Your task to perform on an android device: open app "Google Photos" Image 0: 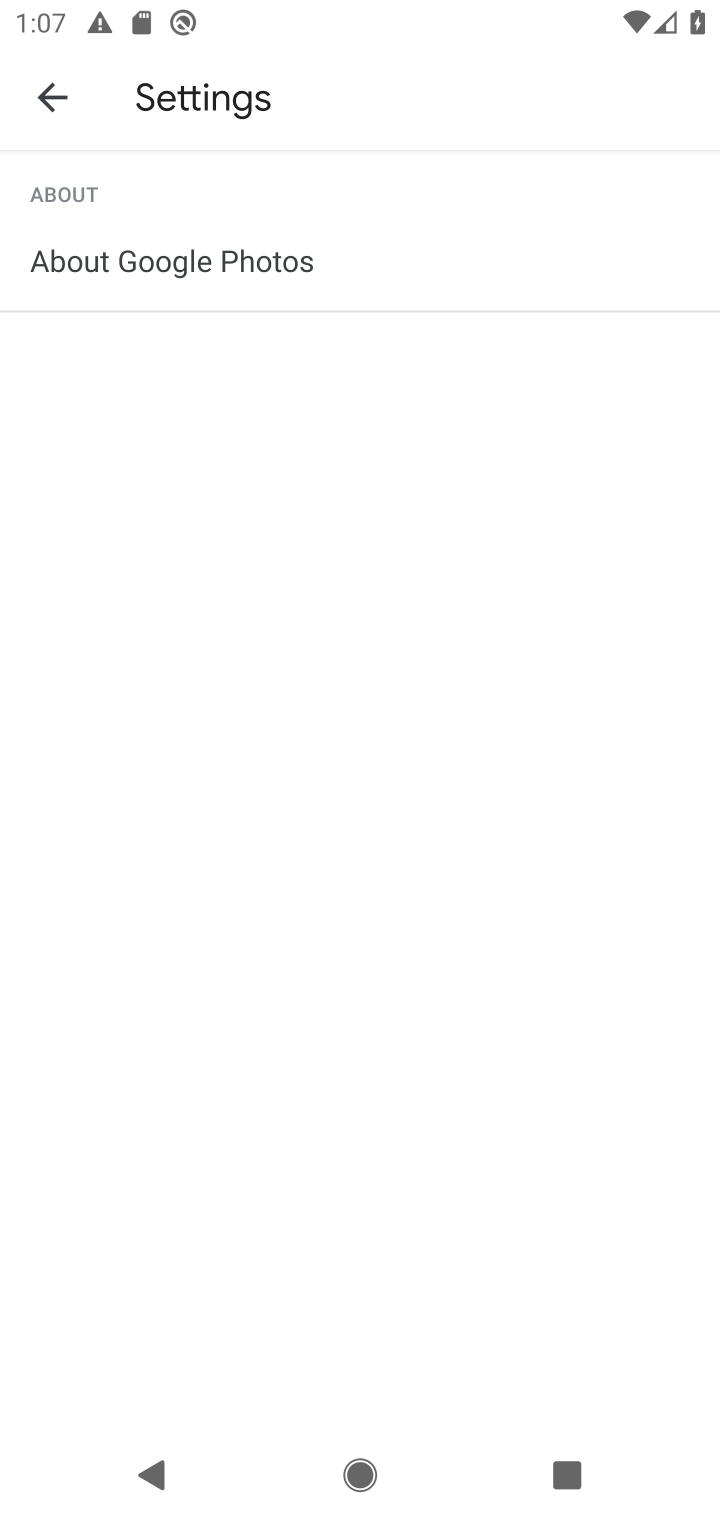
Step 0: press home button
Your task to perform on an android device: open app "Google Photos" Image 1: 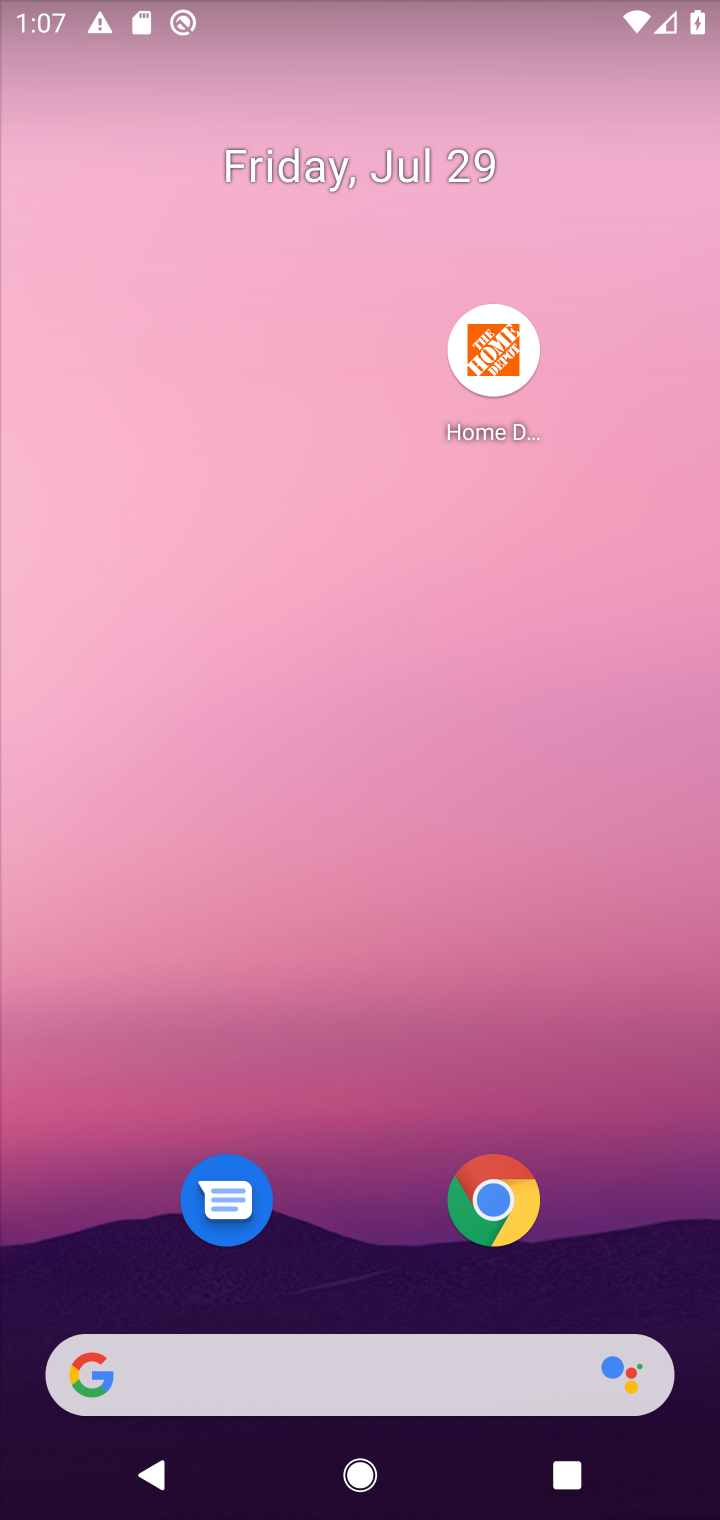
Step 1: drag from (582, 1099) to (443, 147)
Your task to perform on an android device: open app "Google Photos" Image 2: 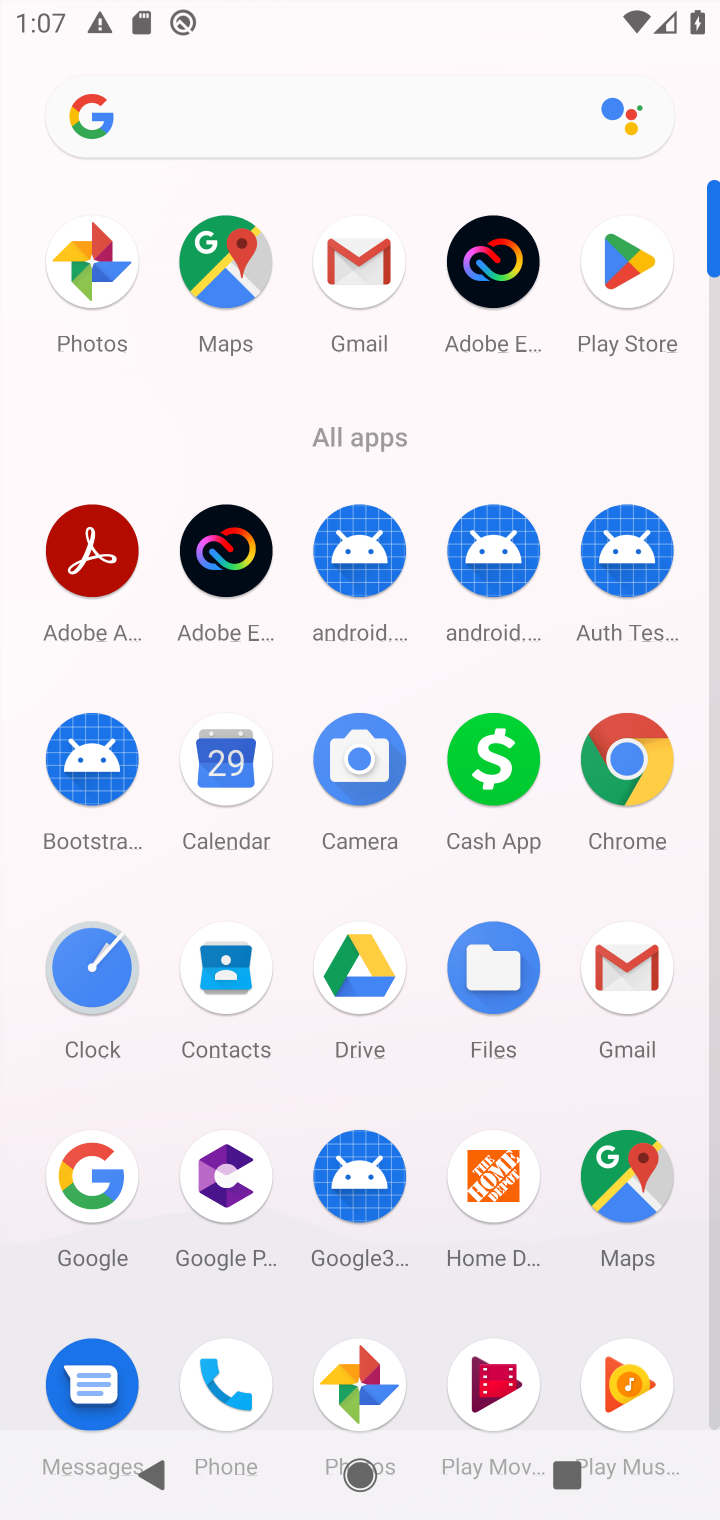
Step 2: click (650, 270)
Your task to perform on an android device: open app "Google Photos" Image 3: 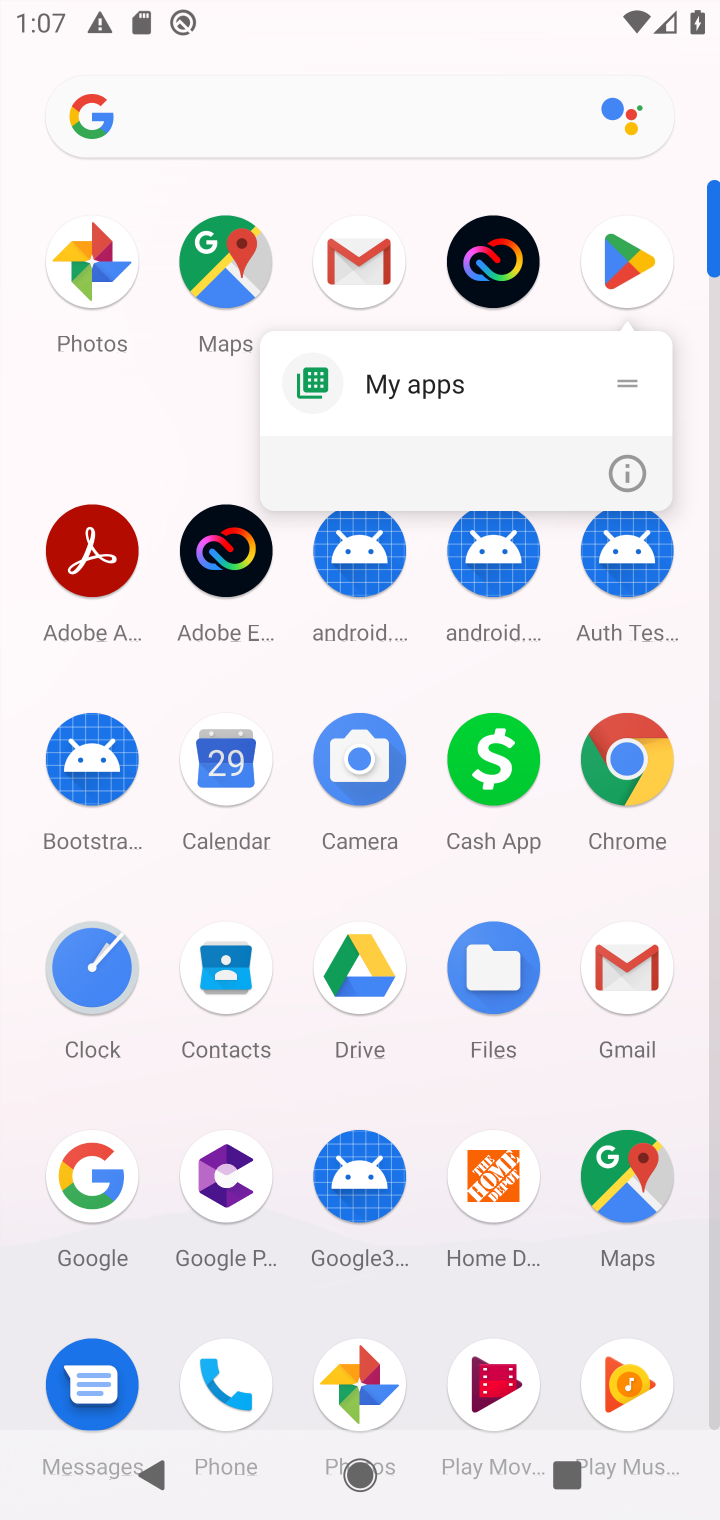
Step 3: click (616, 249)
Your task to perform on an android device: open app "Google Photos" Image 4: 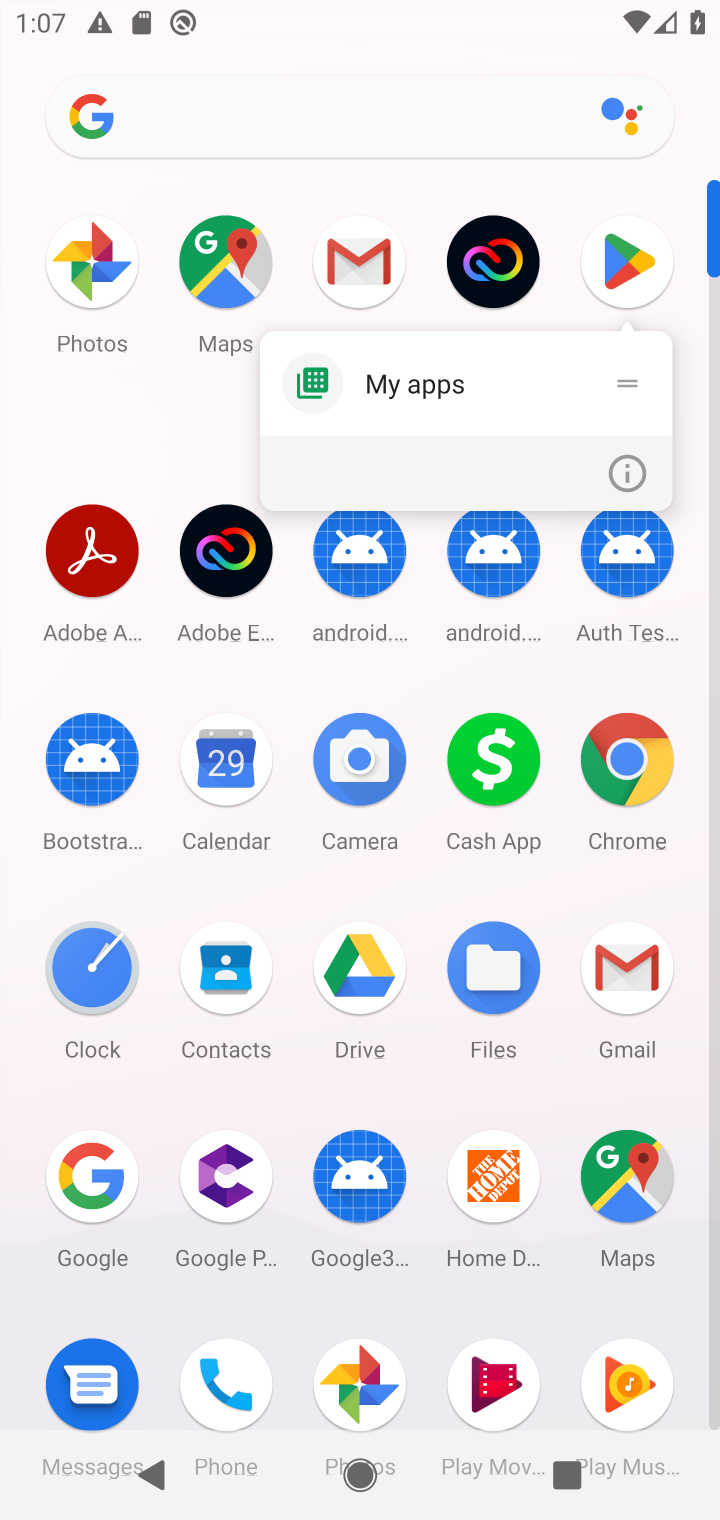
Step 4: click (618, 256)
Your task to perform on an android device: open app "Google Photos" Image 5: 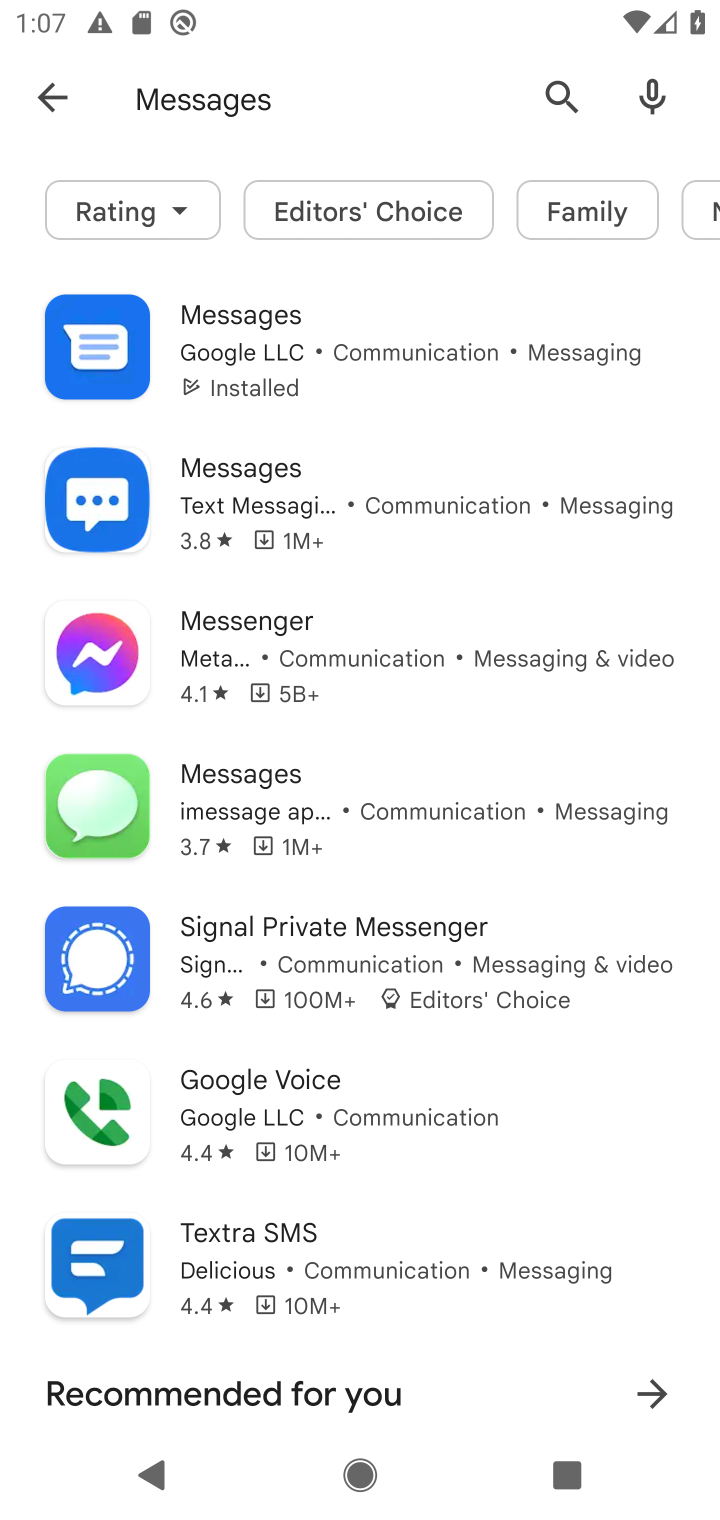
Step 5: click (574, 113)
Your task to perform on an android device: open app "Google Photos" Image 6: 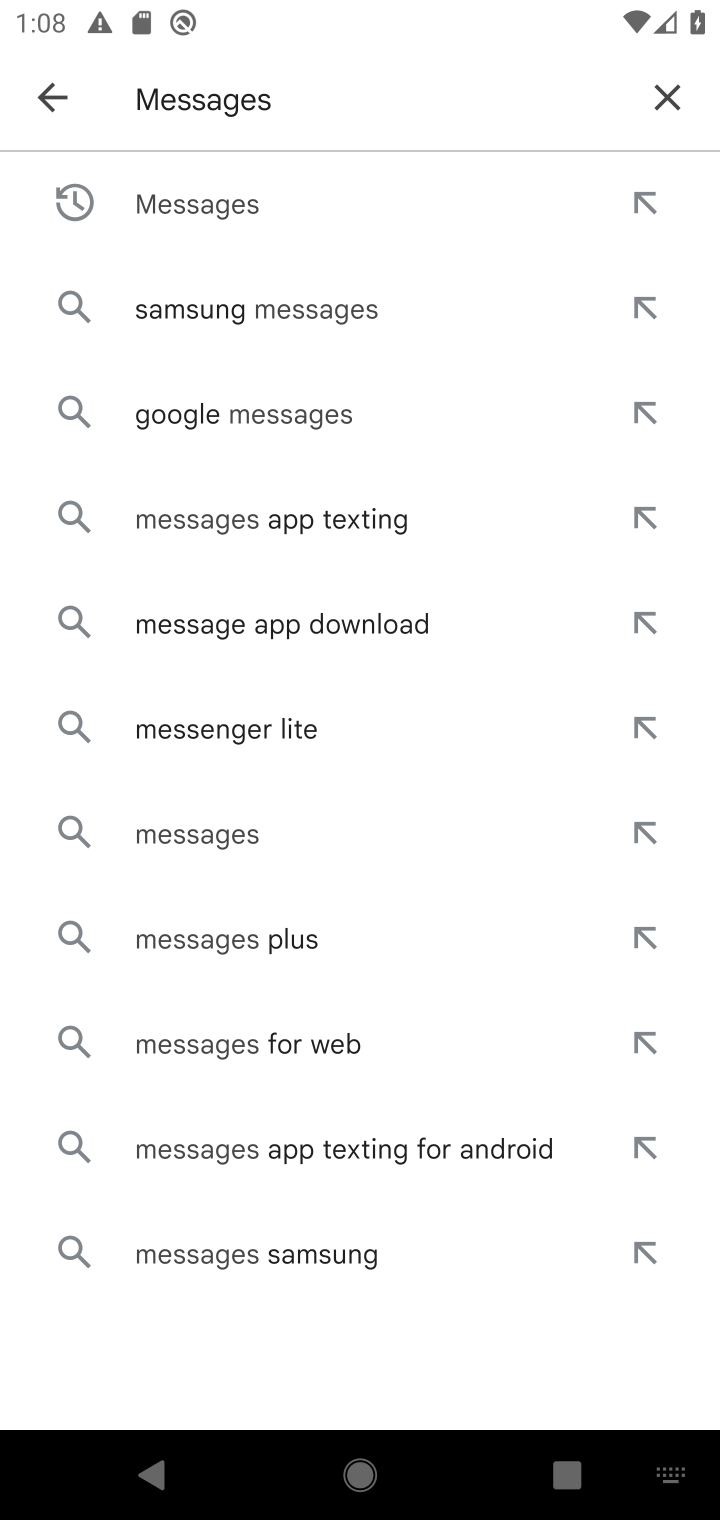
Step 6: click (675, 87)
Your task to perform on an android device: open app "Google Photos" Image 7: 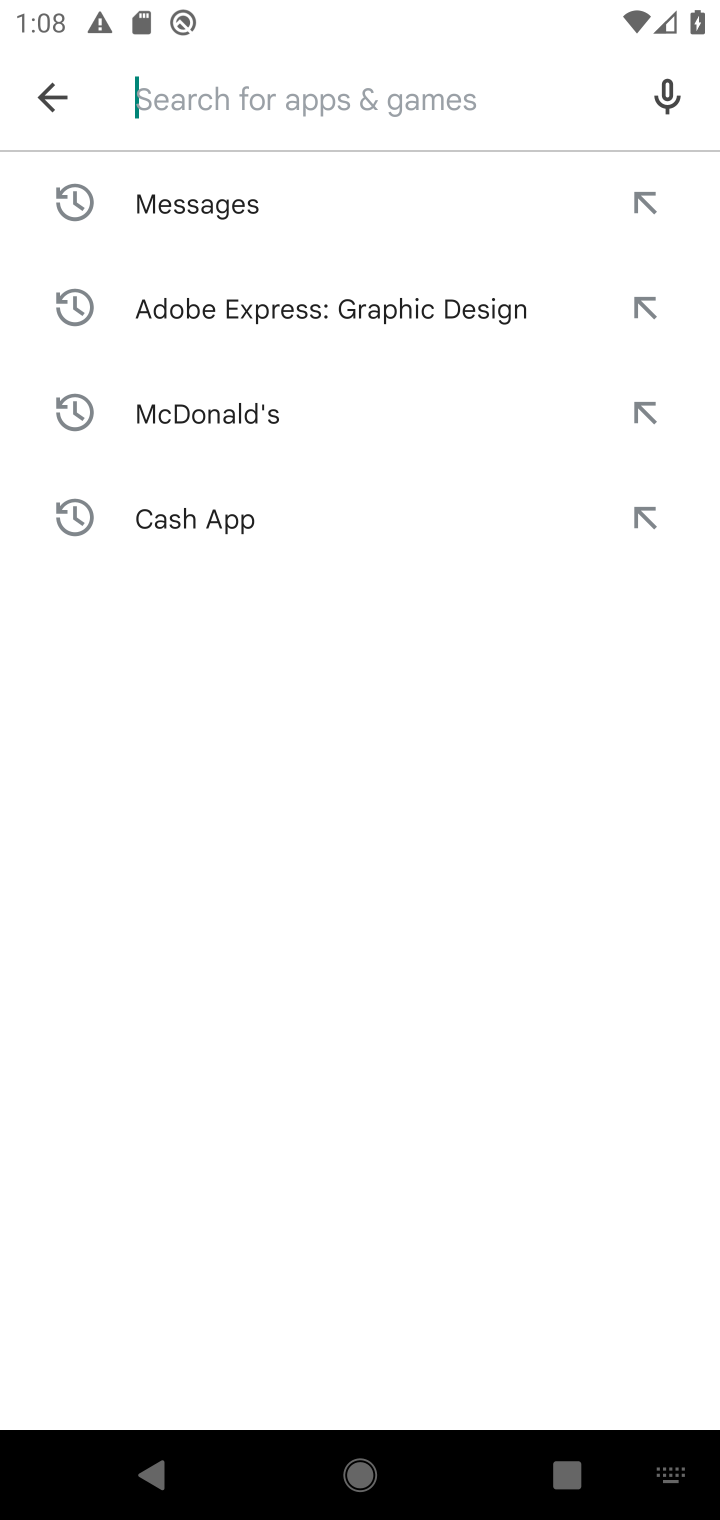
Step 7: type "Google Photos"
Your task to perform on an android device: open app "Google Photos" Image 8: 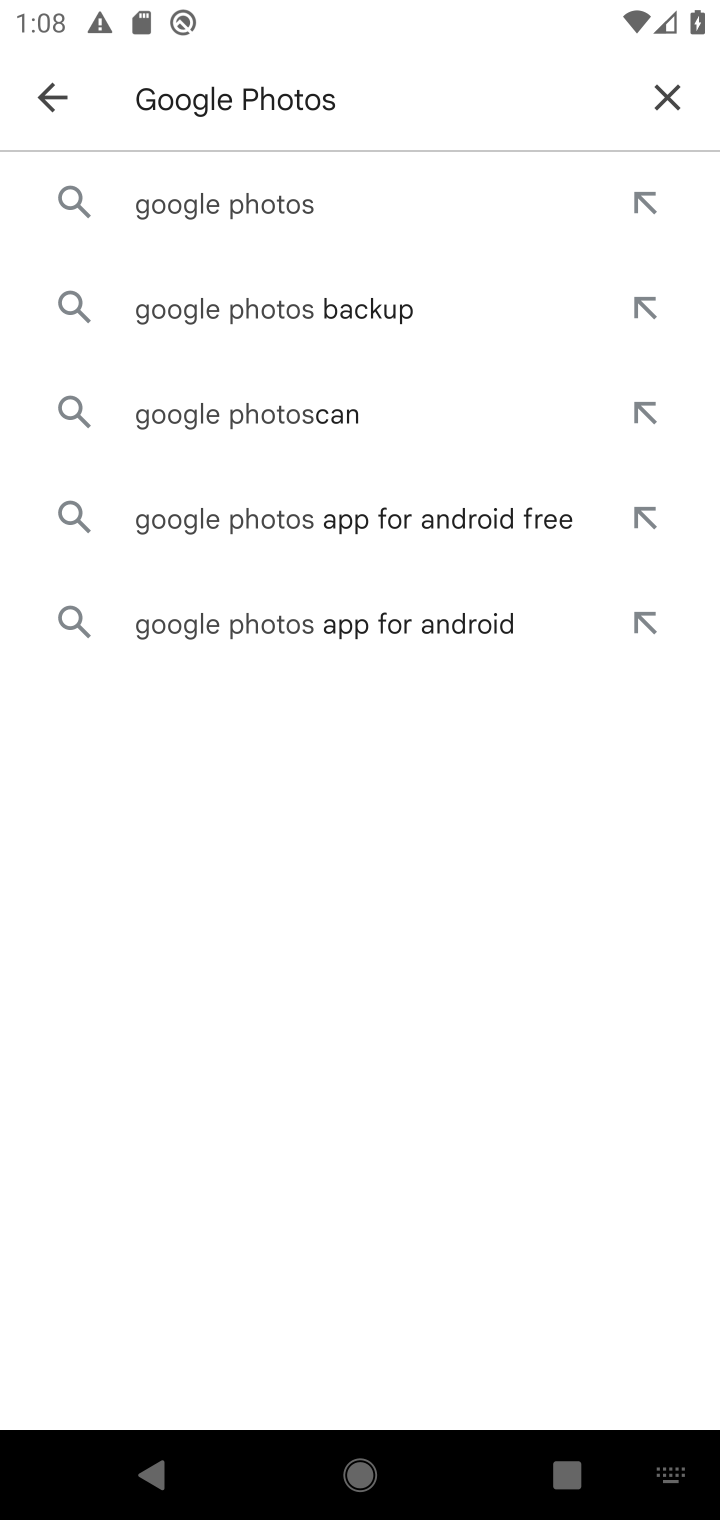
Step 8: press enter
Your task to perform on an android device: open app "Google Photos" Image 9: 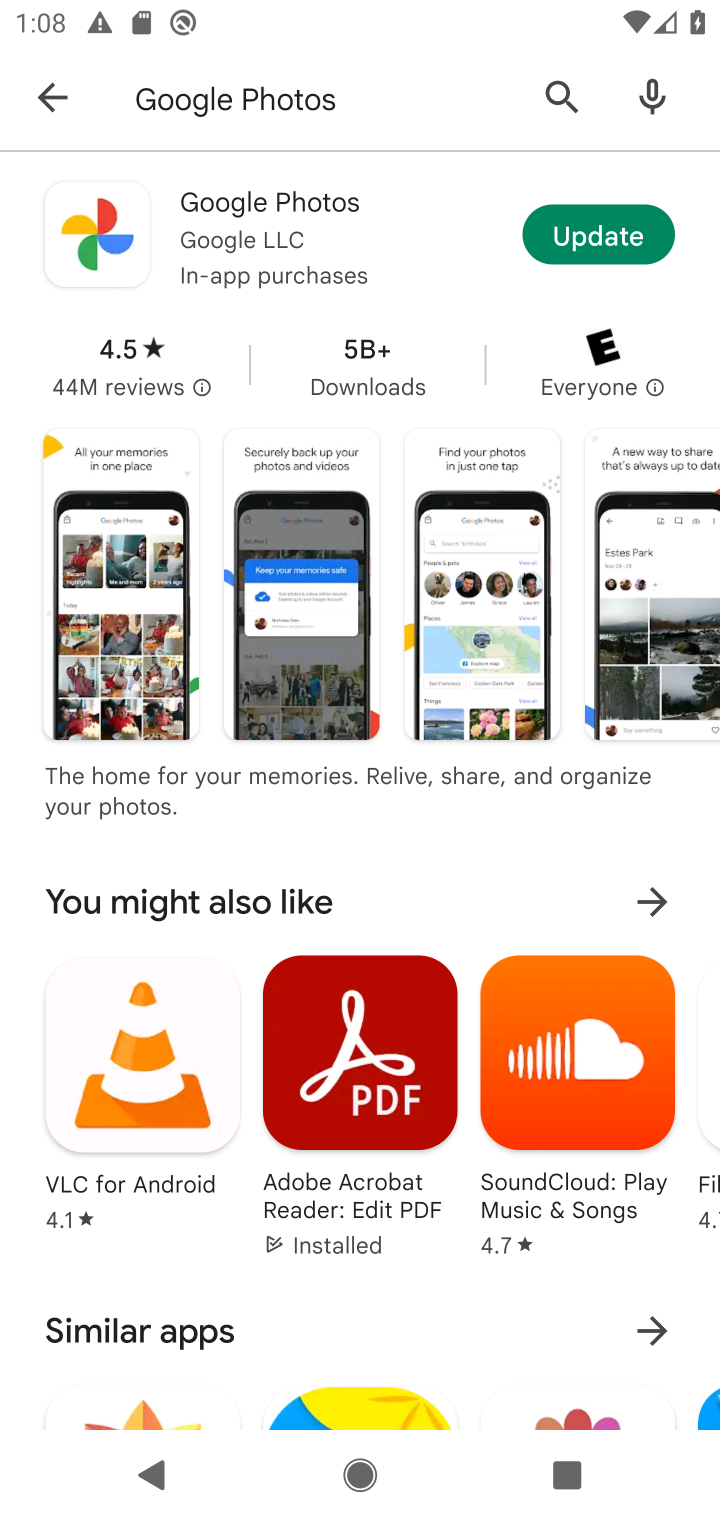
Step 9: click (293, 230)
Your task to perform on an android device: open app "Google Photos" Image 10: 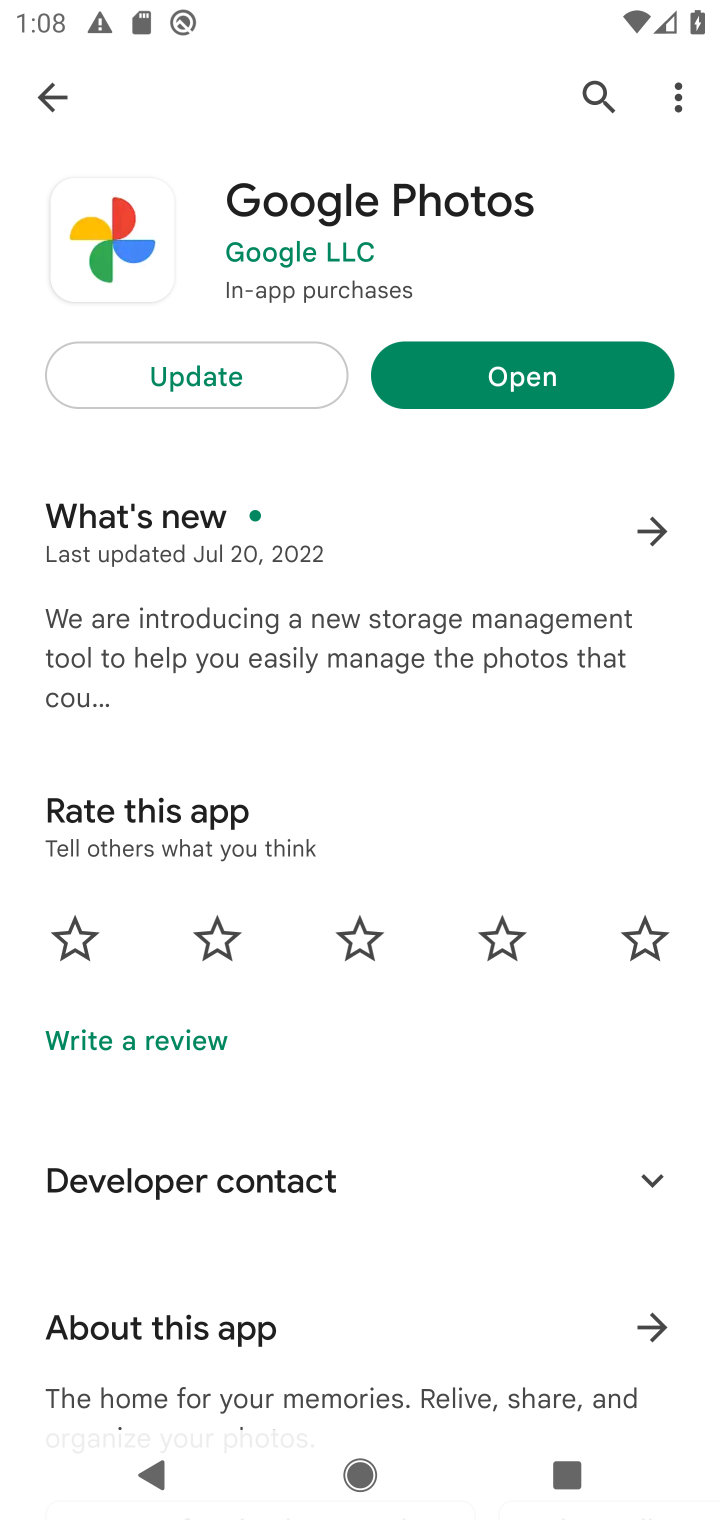
Step 10: click (612, 396)
Your task to perform on an android device: open app "Google Photos" Image 11: 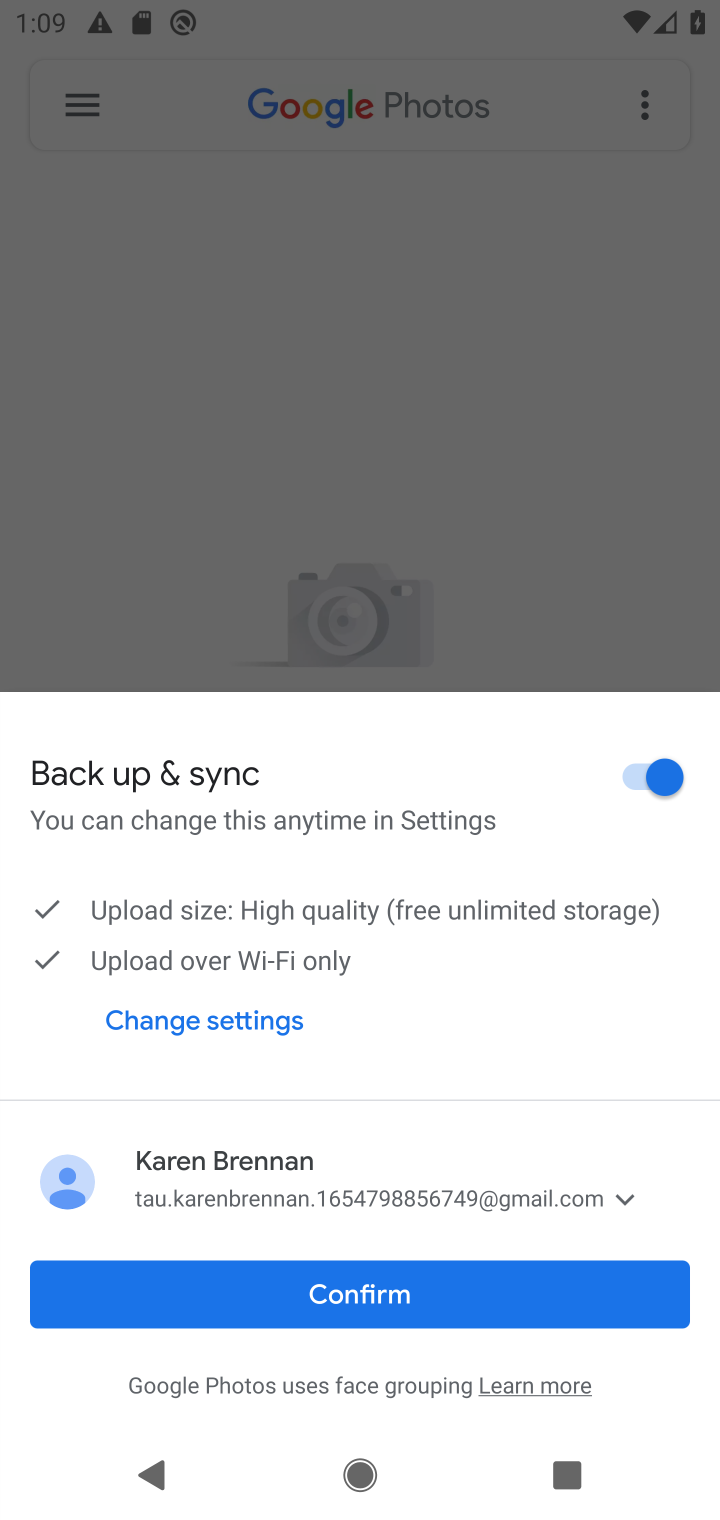
Step 11: click (447, 1265)
Your task to perform on an android device: open app "Google Photos" Image 12: 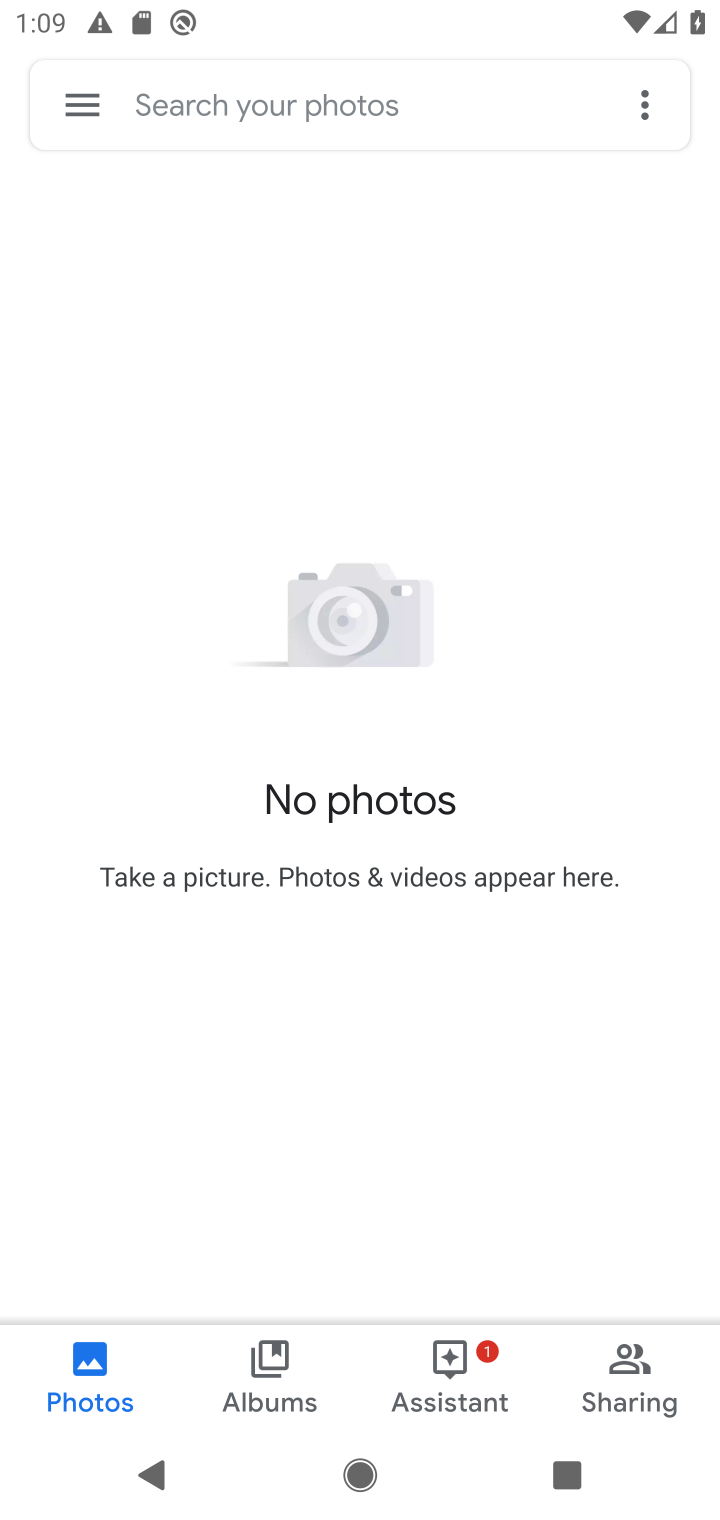
Step 12: task complete